Your task to perform on an android device: Open Google Chrome and open the bookmarks view Image 0: 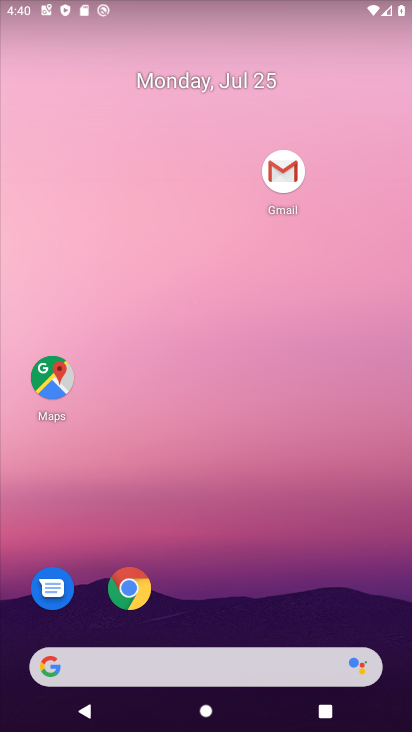
Step 0: drag from (321, 525) to (221, 33)
Your task to perform on an android device: Open Google Chrome and open the bookmarks view Image 1: 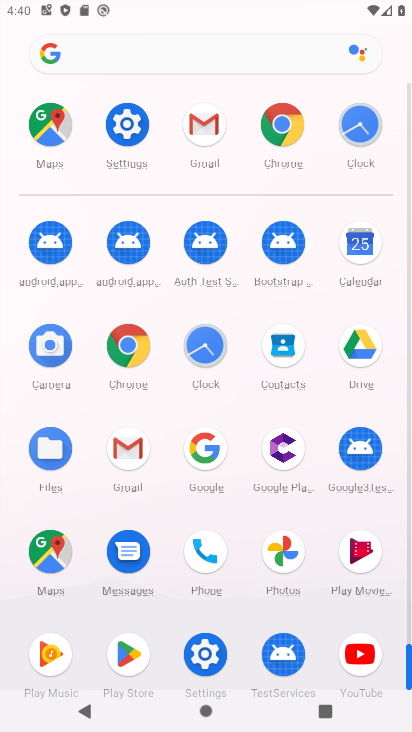
Step 1: click (285, 123)
Your task to perform on an android device: Open Google Chrome and open the bookmarks view Image 2: 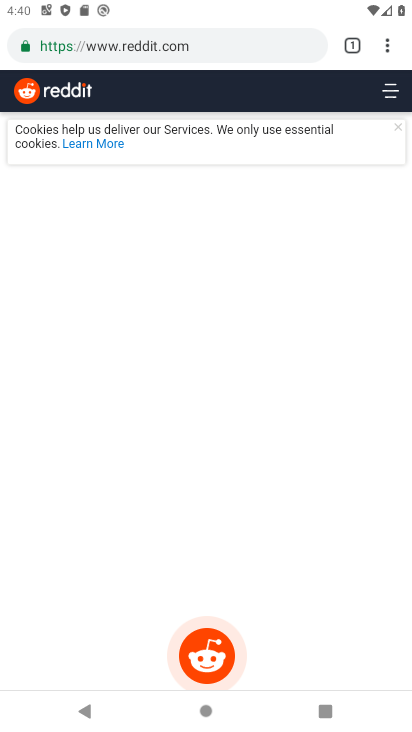
Step 2: task complete